Your task to perform on an android device: Go to Yahoo.com Image 0: 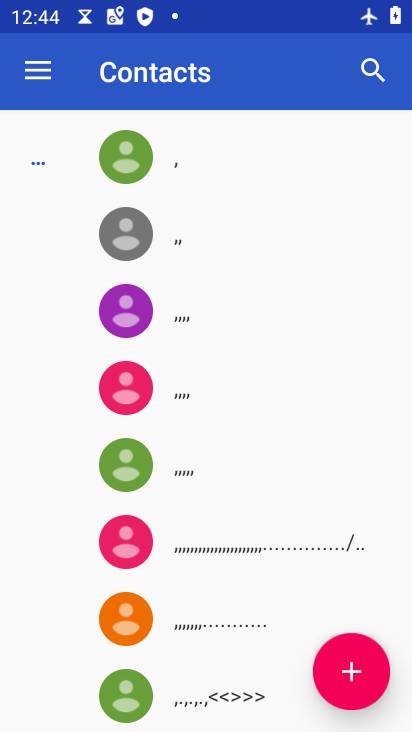
Step 0: press home button
Your task to perform on an android device: Go to Yahoo.com Image 1: 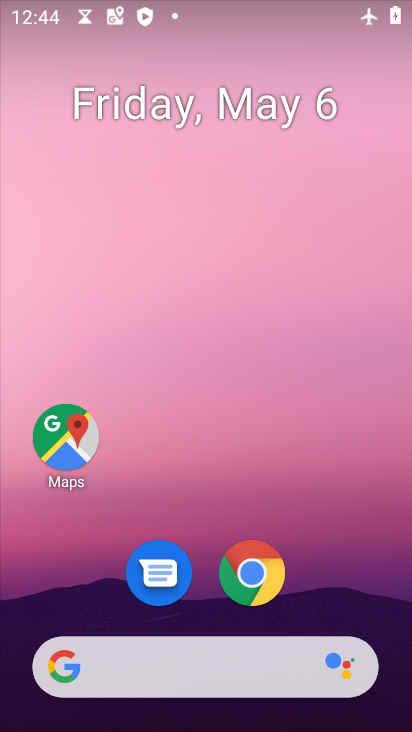
Step 1: drag from (343, 555) to (381, 272)
Your task to perform on an android device: Go to Yahoo.com Image 2: 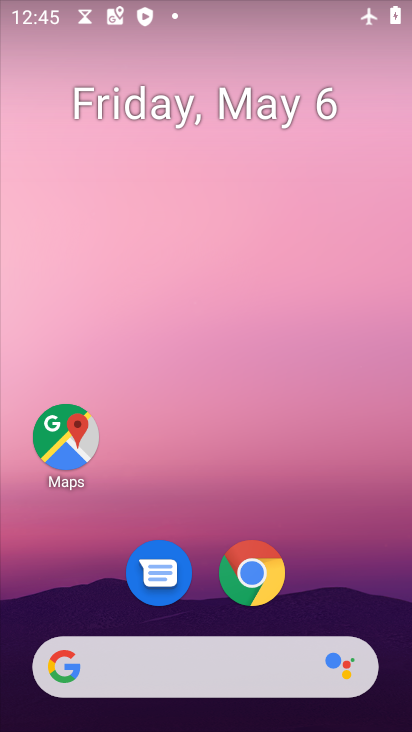
Step 2: drag from (336, 598) to (347, 165)
Your task to perform on an android device: Go to Yahoo.com Image 3: 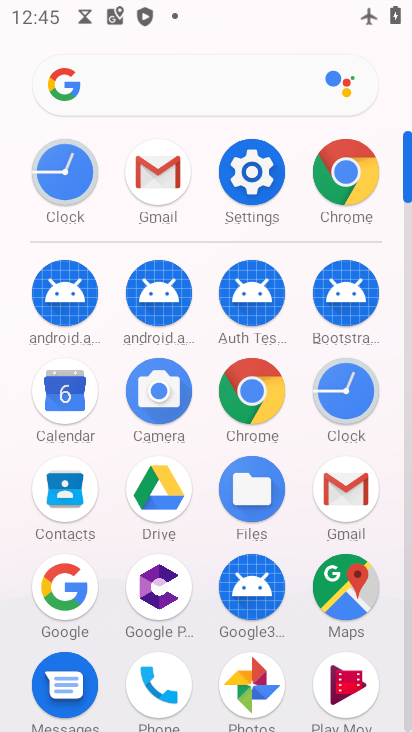
Step 3: click (331, 176)
Your task to perform on an android device: Go to Yahoo.com Image 4: 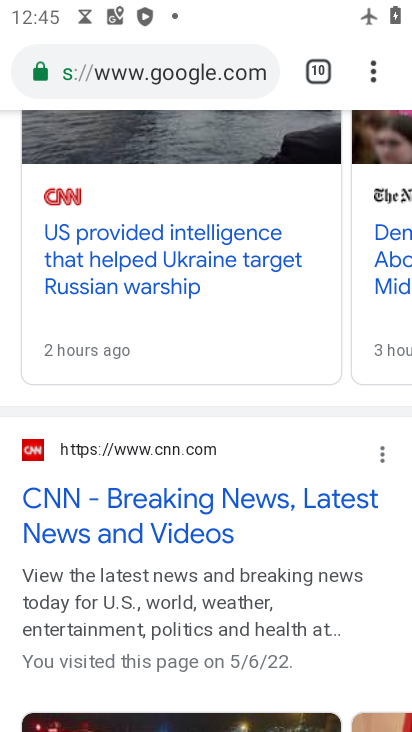
Step 4: drag from (248, 221) to (313, 633)
Your task to perform on an android device: Go to Yahoo.com Image 5: 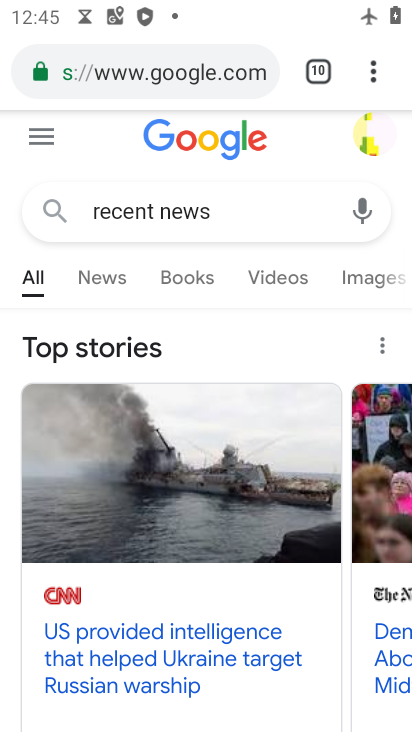
Step 5: click (365, 82)
Your task to perform on an android device: Go to Yahoo.com Image 6: 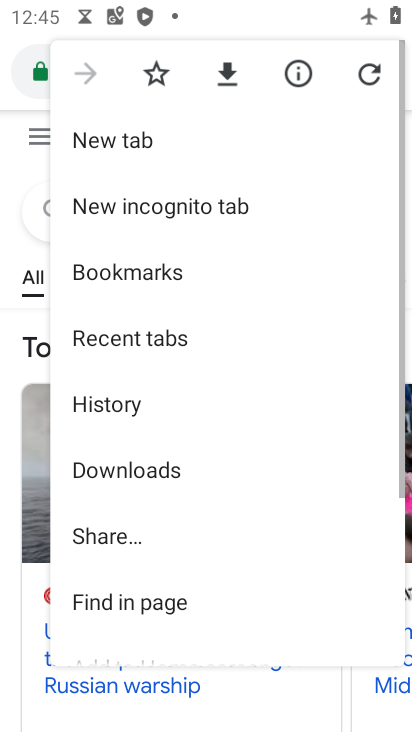
Step 6: click (137, 147)
Your task to perform on an android device: Go to Yahoo.com Image 7: 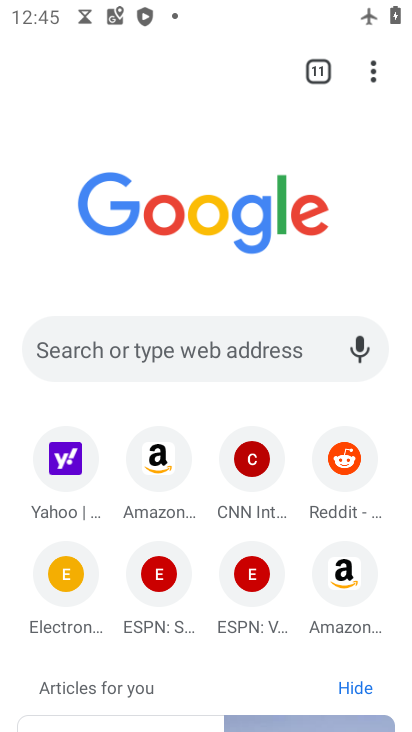
Step 7: click (73, 458)
Your task to perform on an android device: Go to Yahoo.com Image 8: 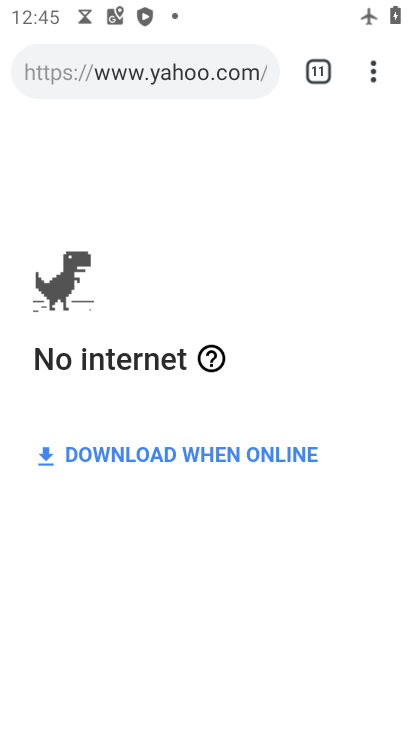
Step 8: task complete